Your task to perform on an android device: turn notification dots on Image 0: 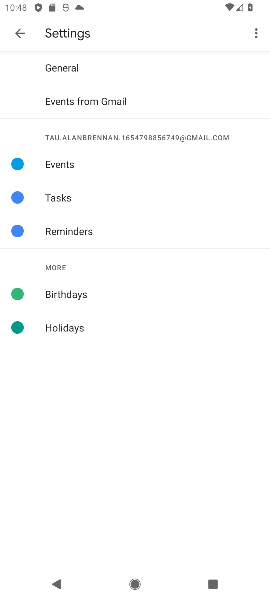
Step 0: press home button
Your task to perform on an android device: turn notification dots on Image 1: 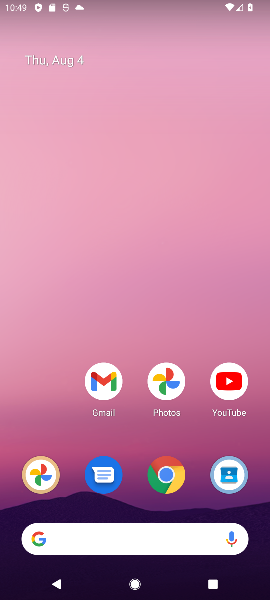
Step 1: drag from (128, 443) to (86, 63)
Your task to perform on an android device: turn notification dots on Image 2: 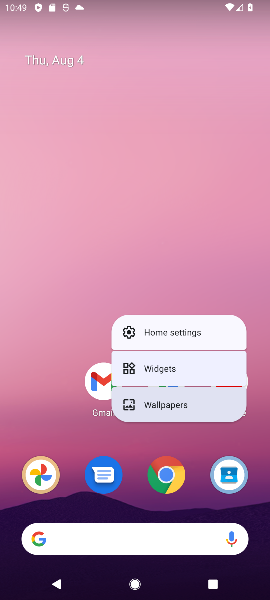
Step 2: drag from (82, 429) to (70, 6)
Your task to perform on an android device: turn notification dots on Image 3: 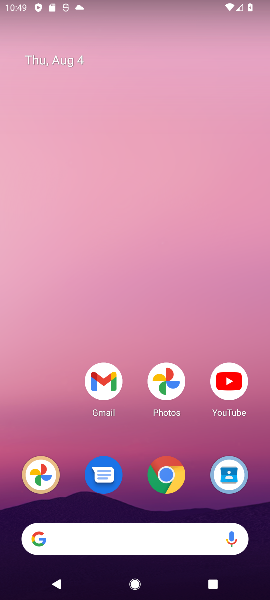
Step 3: drag from (171, 339) to (128, 81)
Your task to perform on an android device: turn notification dots on Image 4: 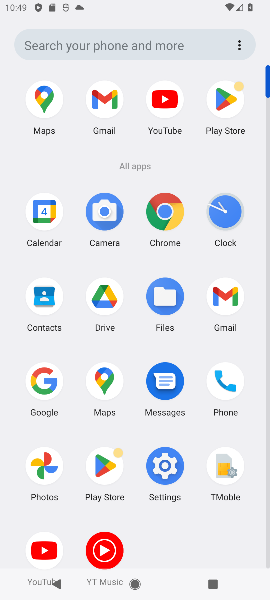
Step 4: click (172, 470)
Your task to perform on an android device: turn notification dots on Image 5: 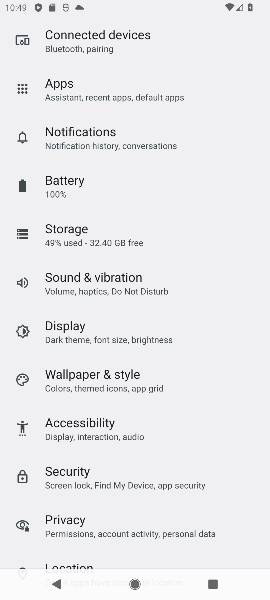
Step 5: click (72, 141)
Your task to perform on an android device: turn notification dots on Image 6: 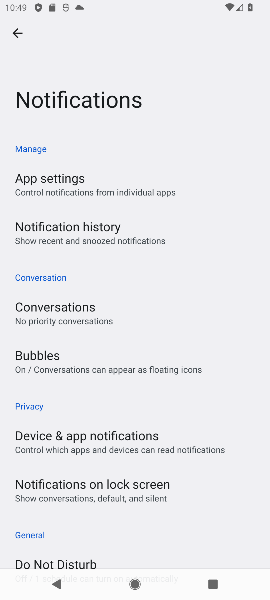
Step 6: task complete